Your task to perform on an android device: turn on data saver in the chrome app Image 0: 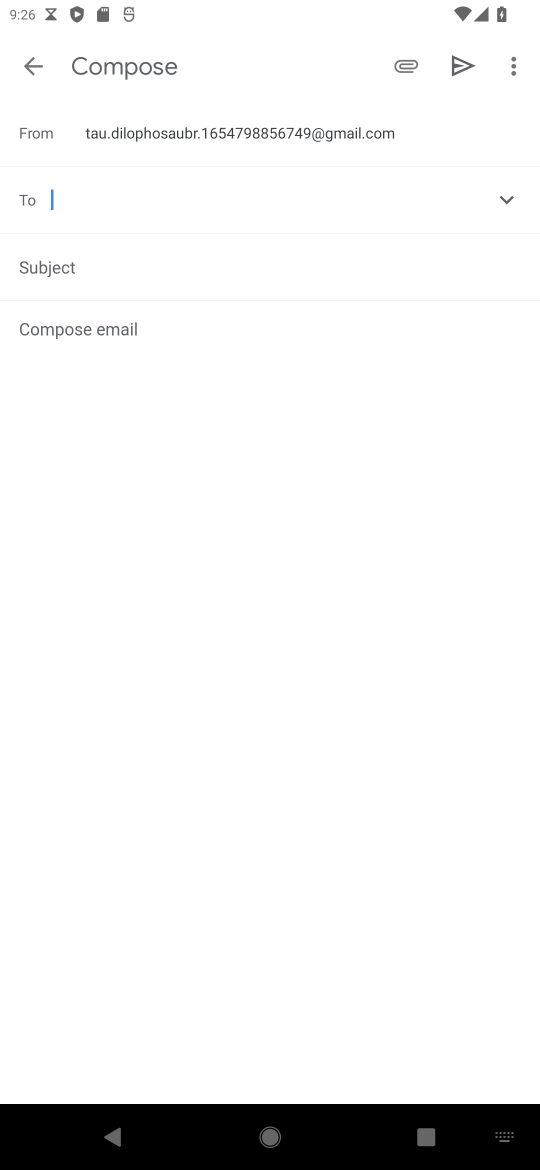
Step 0: press home button
Your task to perform on an android device: turn on data saver in the chrome app Image 1: 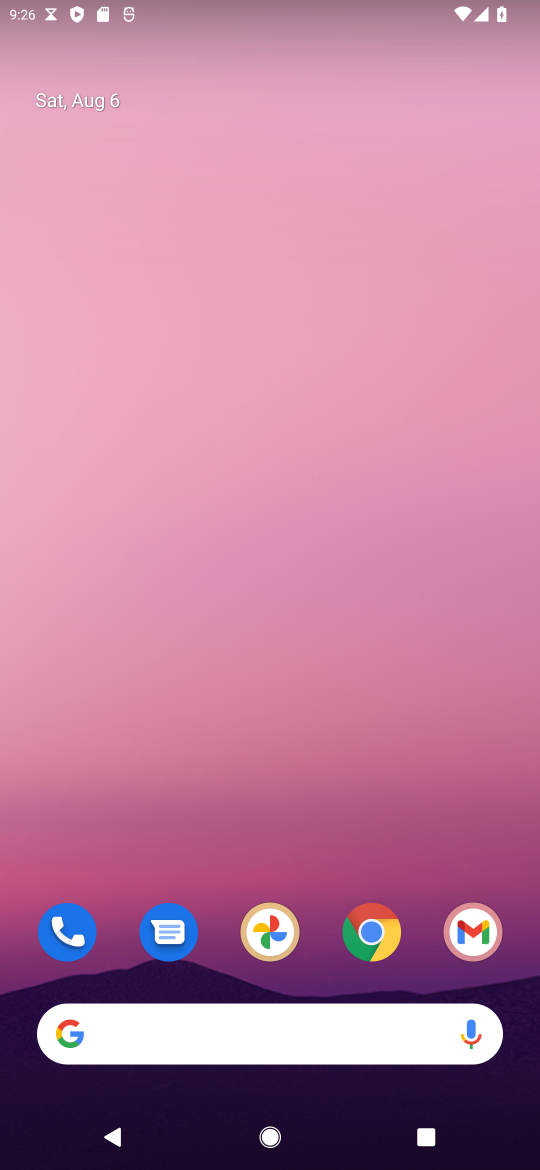
Step 1: click (367, 932)
Your task to perform on an android device: turn on data saver in the chrome app Image 2: 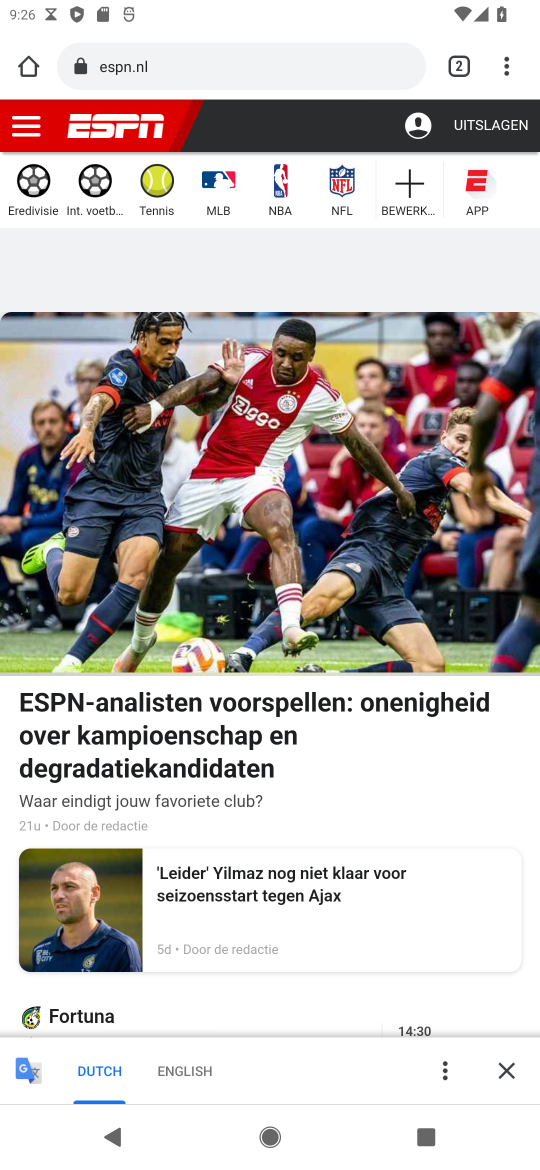
Step 2: click (510, 65)
Your task to perform on an android device: turn on data saver in the chrome app Image 3: 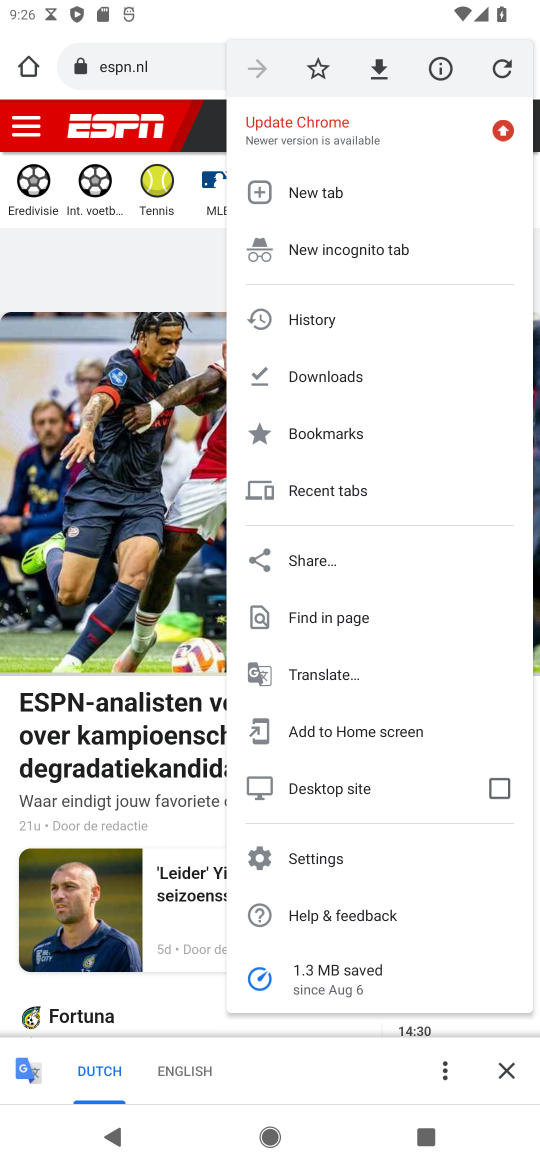
Step 3: click (313, 857)
Your task to perform on an android device: turn on data saver in the chrome app Image 4: 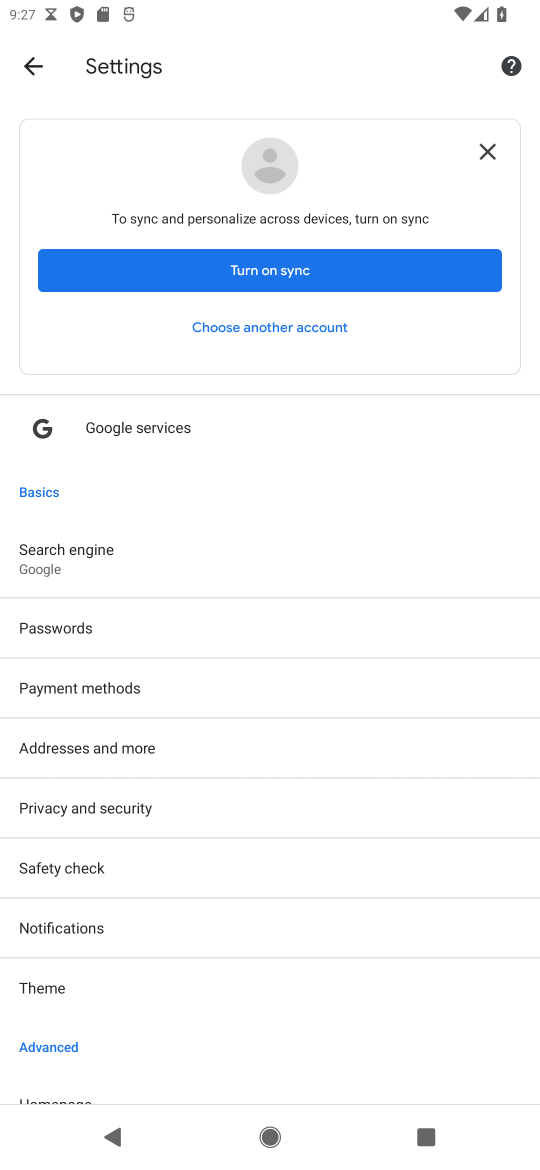
Step 4: drag from (169, 977) to (252, 712)
Your task to perform on an android device: turn on data saver in the chrome app Image 5: 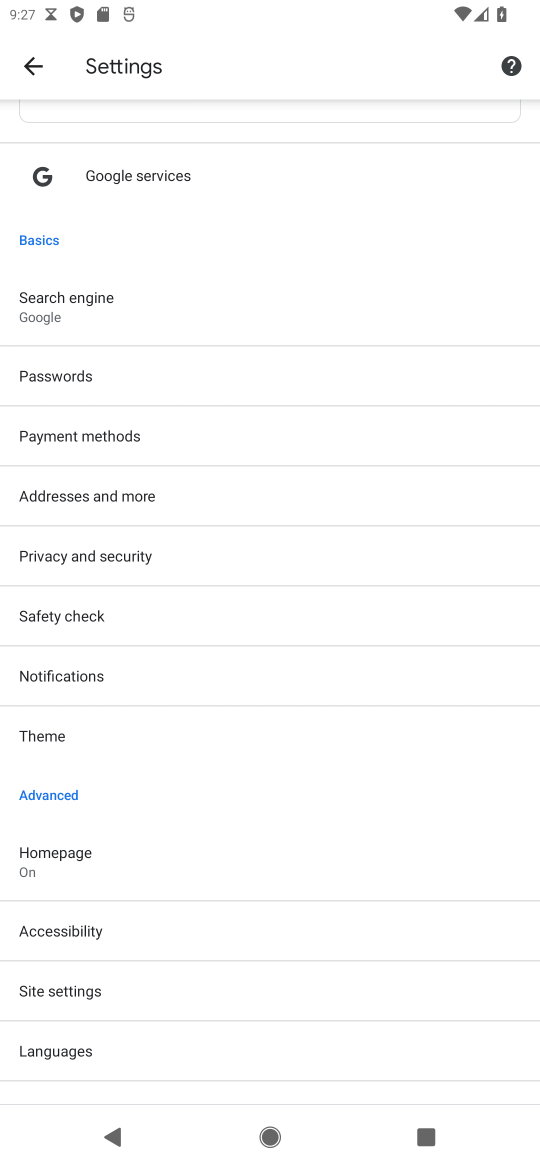
Step 5: drag from (167, 931) to (287, 790)
Your task to perform on an android device: turn on data saver in the chrome app Image 6: 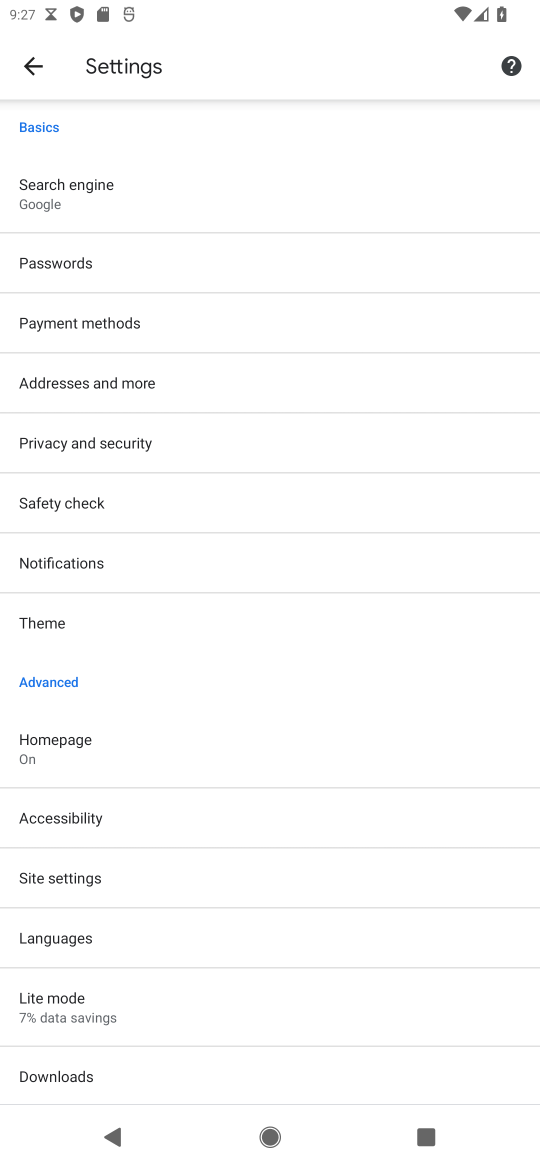
Step 6: drag from (137, 868) to (185, 779)
Your task to perform on an android device: turn on data saver in the chrome app Image 7: 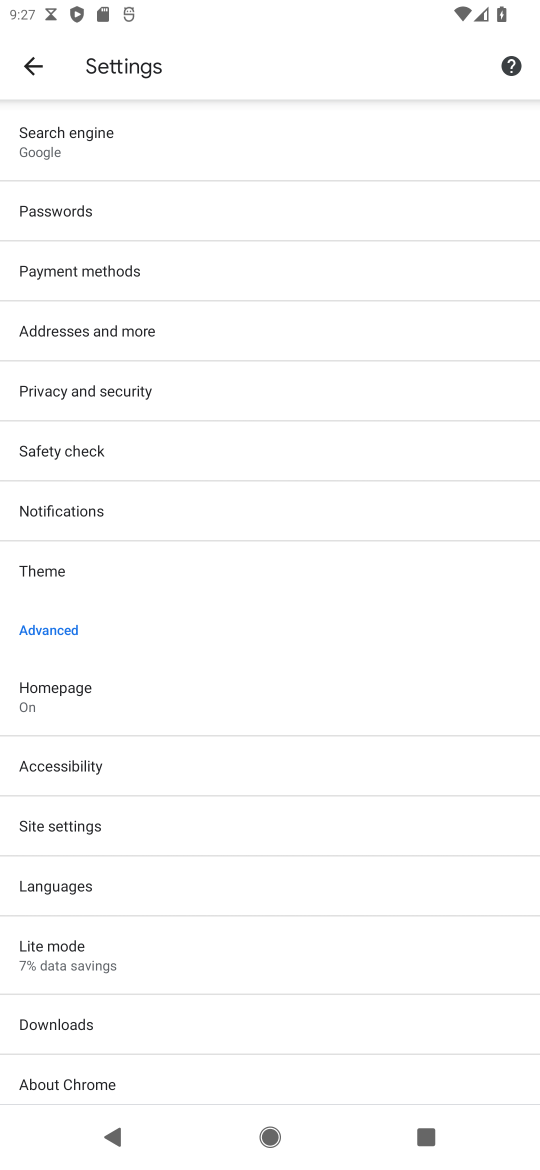
Step 7: click (87, 965)
Your task to perform on an android device: turn on data saver in the chrome app Image 8: 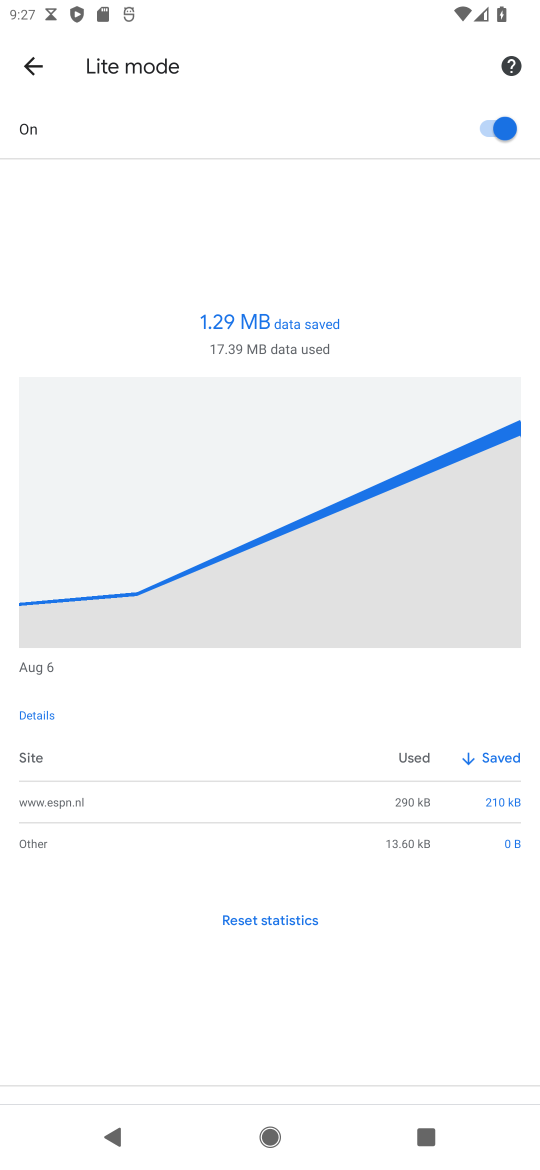
Step 8: task complete